Your task to perform on an android device: Open the stopwatch Image 0: 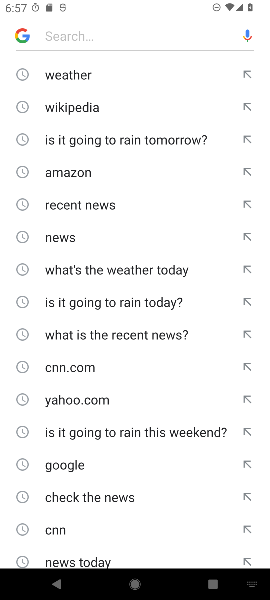
Step 0: press home button
Your task to perform on an android device: Open the stopwatch Image 1: 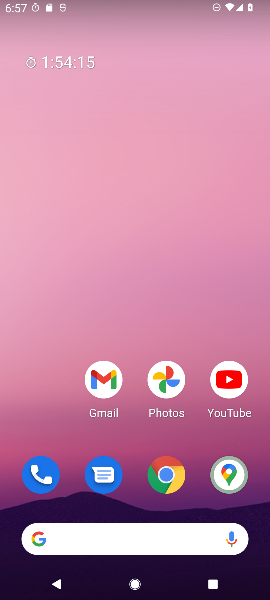
Step 1: drag from (66, 435) to (62, 172)
Your task to perform on an android device: Open the stopwatch Image 2: 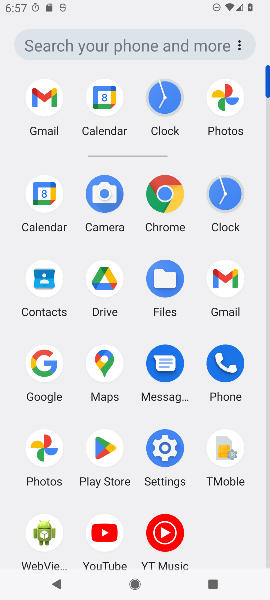
Step 2: click (213, 193)
Your task to perform on an android device: Open the stopwatch Image 3: 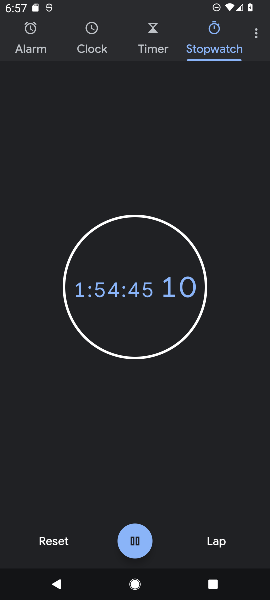
Step 3: task complete